Your task to perform on an android device: Go to wifi settings Image 0: 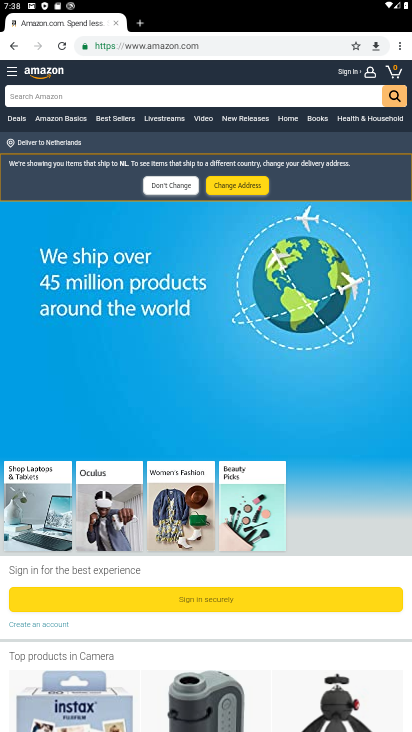
Step 0: click (314, 274)
Your task to perform on an android device: Go to wifi settings Image 1: 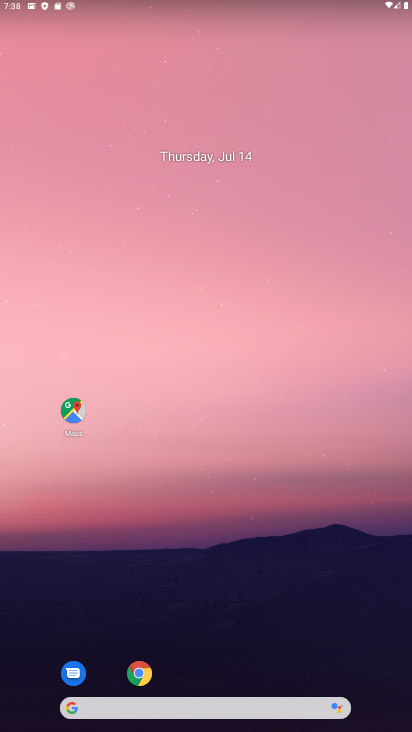
Step 1: drag from (241, 605) to (269, 411)
Your task to perform on an android device: Go to wifi settings Image 2: 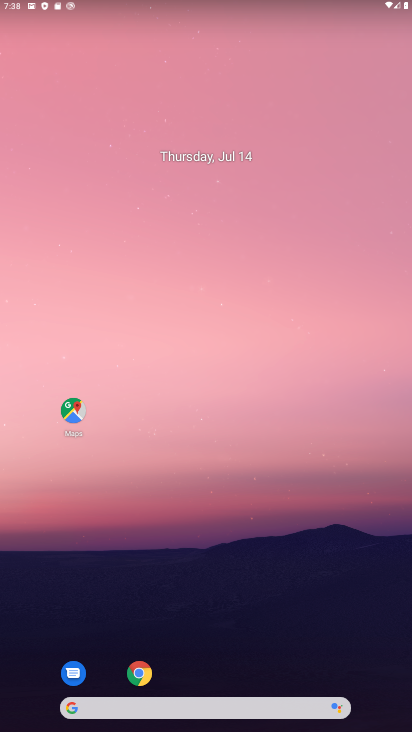
Step 2: drag from (209, 667) to (249, 122)
Your task to perform on an android device: Go to wifi settings Image 3: 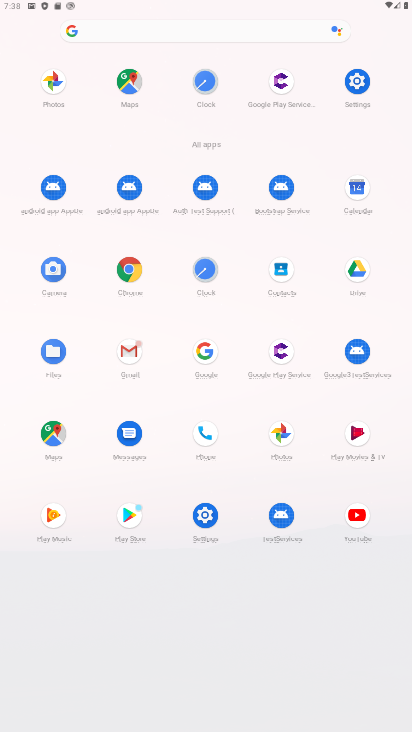
Step 3: click (188, 518)
Your task to perform on an android device: Go to wifi settings Image 4: 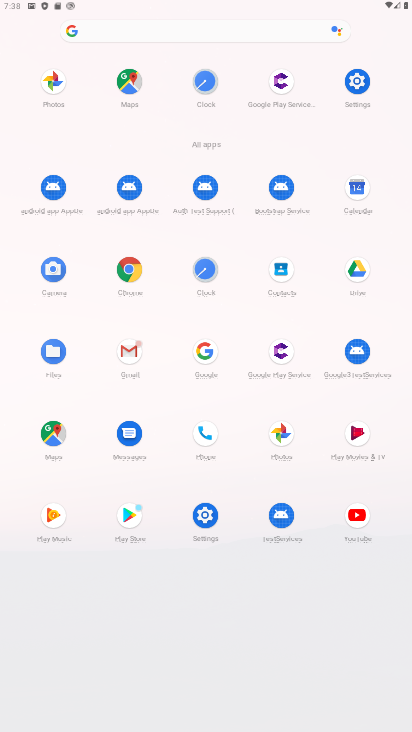
Step 4: click (190, 518)
Your task to perform on an android device: Go to wifi settings Image 5: 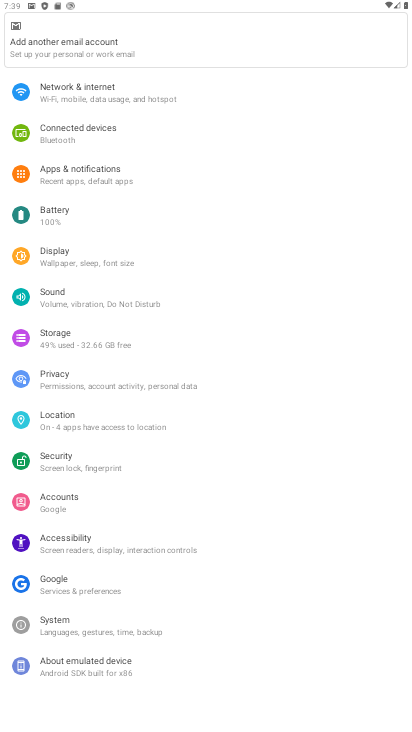
Step 5: click (134, 104)
Your task to perform on an android device: Go to wifi settings Image 6: 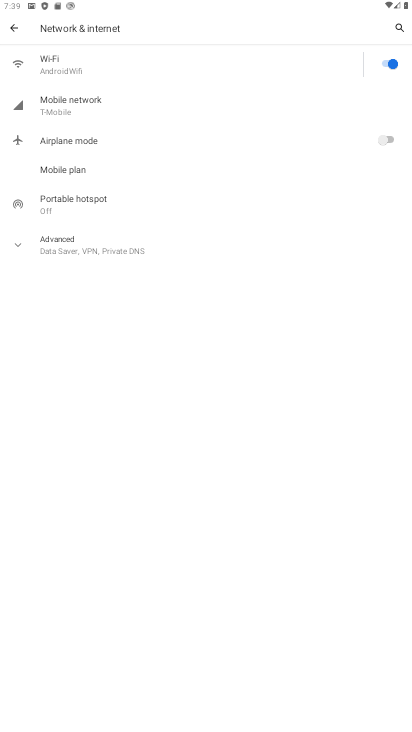
Step 6: click (146, 73)
Your task to perform on an android device: Go to wifi settings Image 7: 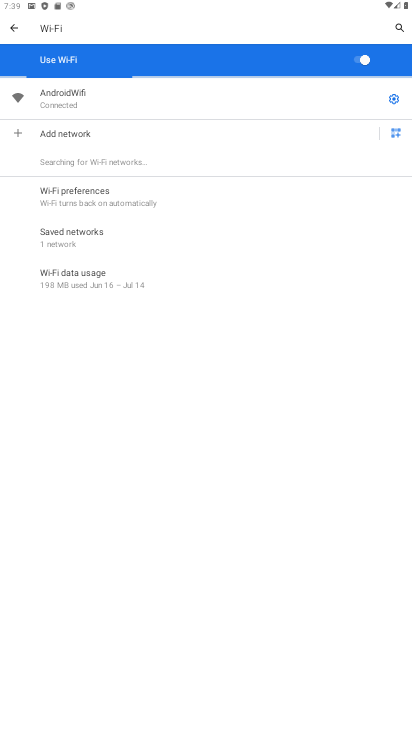
Step 7: drag from (238, 568) to (291, 127)
Your task to perform on an android device: Go to wifi settings Image 8: 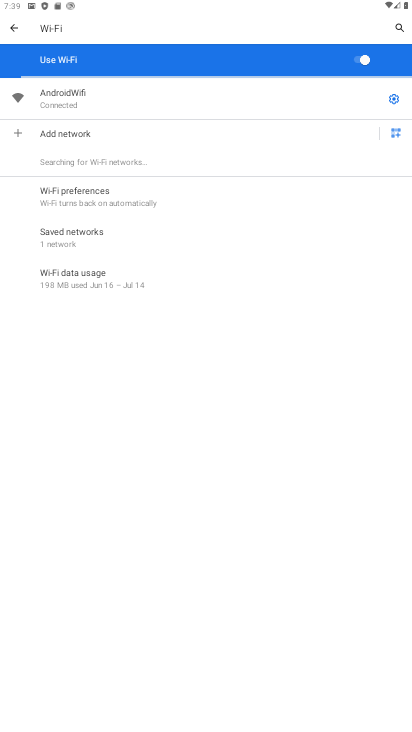
Step 8: click (394, 101)
Your task to perform on an android device: Go to wifi settings Image 9: 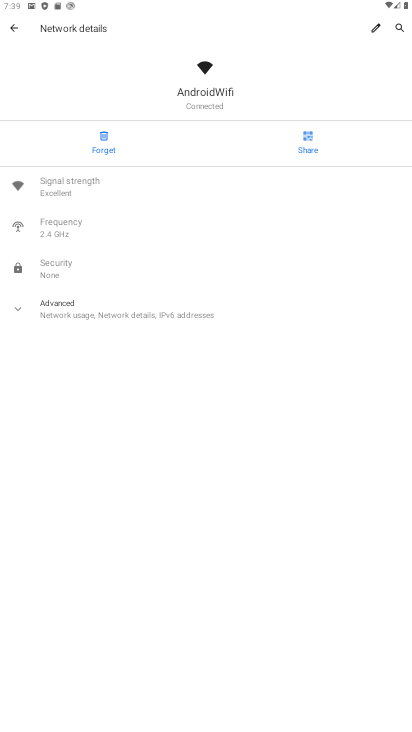
Step 9: task complete